Your task to perform on an android device: Go to ESPN.com Image 0: 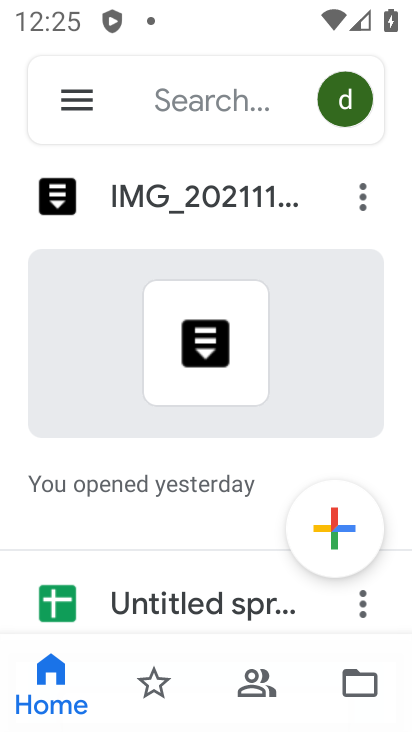
Step 0: press home button
Your task to perform on an android device: Go to ESPN.com Image 1: 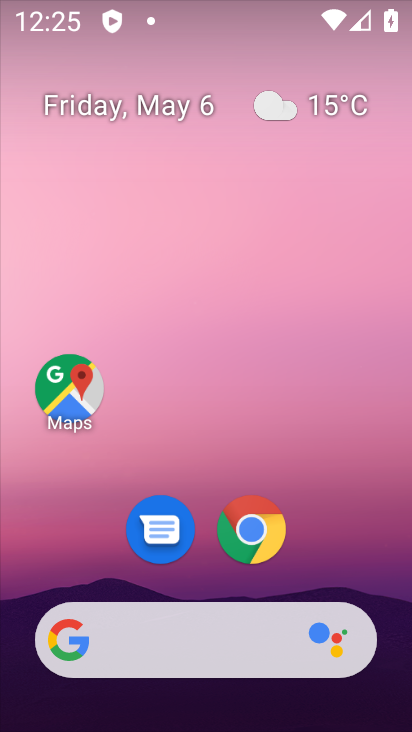
Step 1: click (274, 542)
Your task to perform on an android device: Go to ESPN.com Image 2: 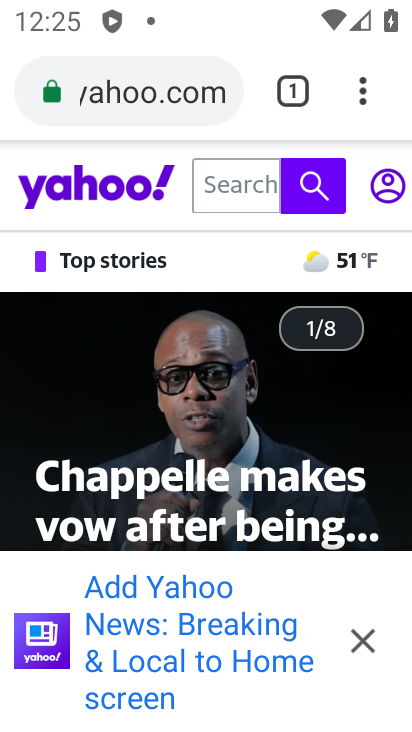
Step 2: click (303, 77)
Your task to perform on an android device: Go to ESPN.com Image 3: 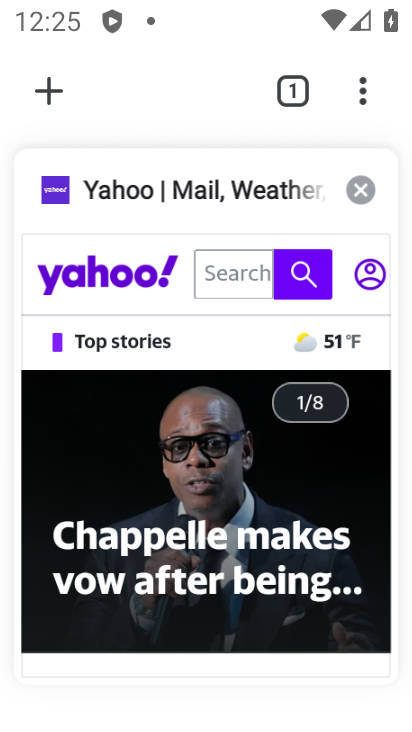
Step 3: click (362, 189)
Your task to perform on an android device: Go to ESPN.com Image 4: 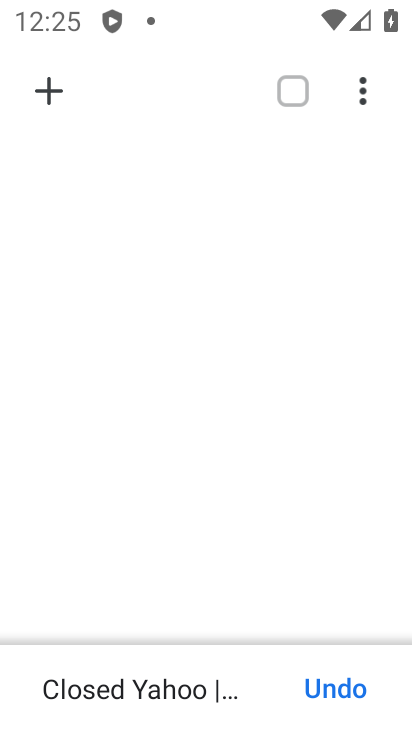
Step 4: click (50, 88)
Your task to perform on an android device: Go to ESPN.com Image 5: 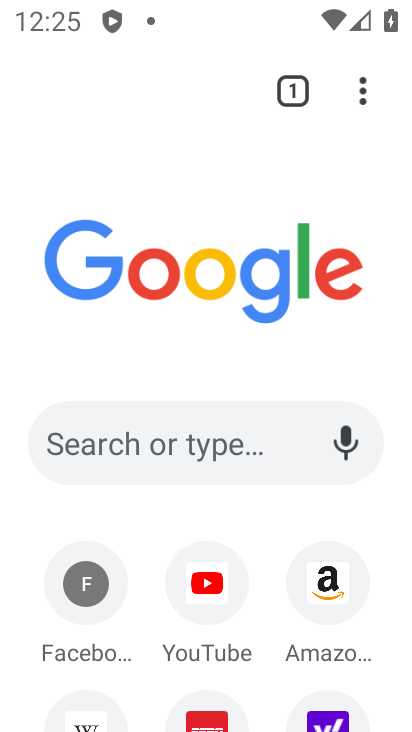
Step 5: click (201, 702)
Your task to perform on an android device: Go to ESPN.com Image 6: 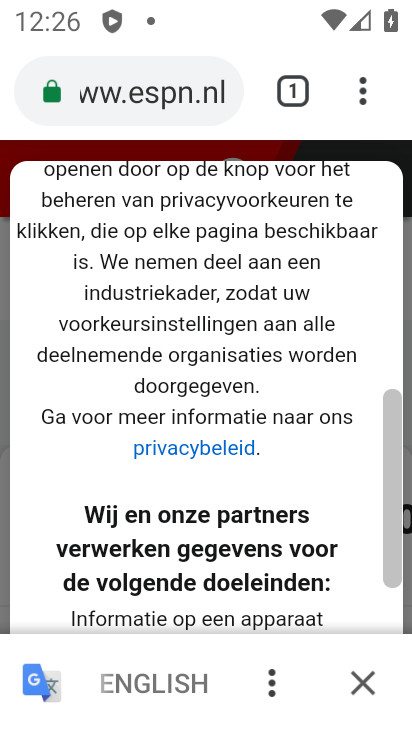
Step 6: click (364, 679)
Your task to perform on an android device: Go to ESPN.com Image 7: 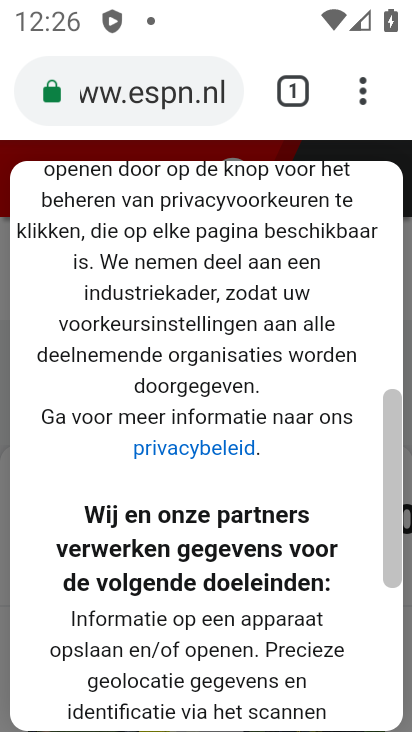
Step 7: task complete